Your task to perform on an android device: Open Yahoo.com Image 0: 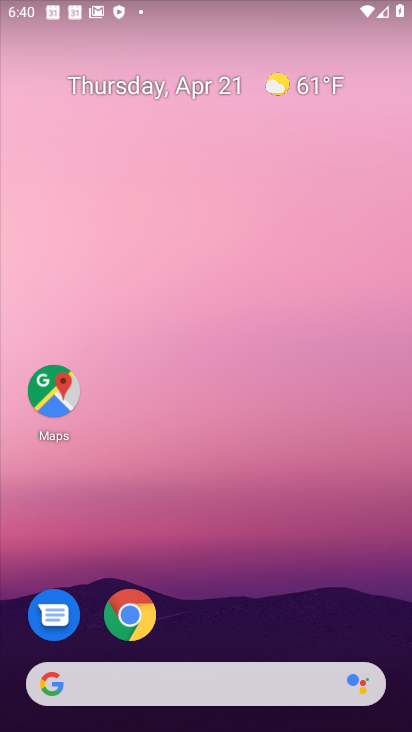
Step 0: drag from (238, 599) to (265, 78)
Your task to perform on an android device: Open Yahoo.com Image 1: 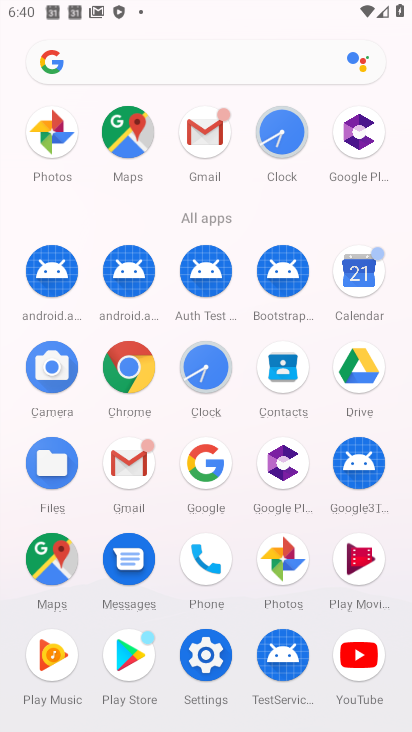
Step 1: click (109, 365)
Your task to perform on an android device: Open Yahoo.com Image 2: 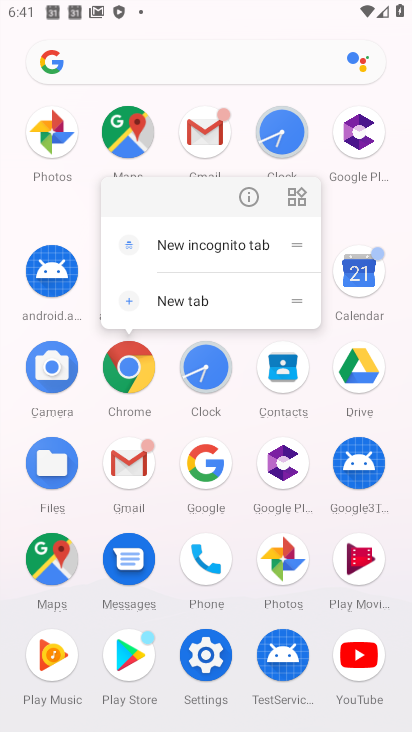
Step 2: click (247, 192)
Your task to perform on an android device: Open Yahoo.com Image 3: 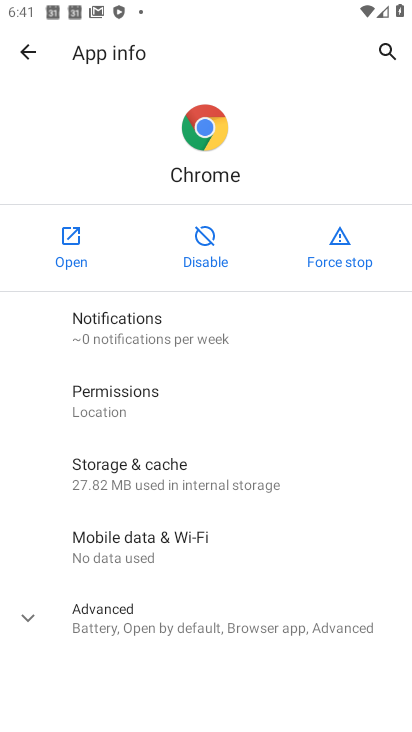
Step 3: click (62, 233)
Your task to perform on an android device: Open Yahoo.com Image 4: 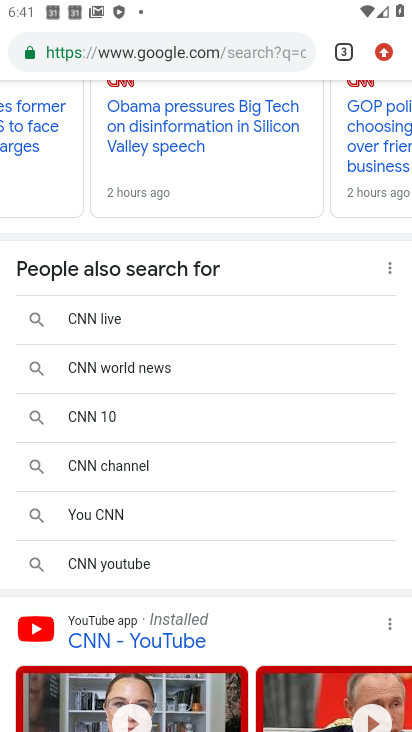
Step 4: click (344, 42)
Your task to perform on an android device: Open Yahoo.com Image 5: 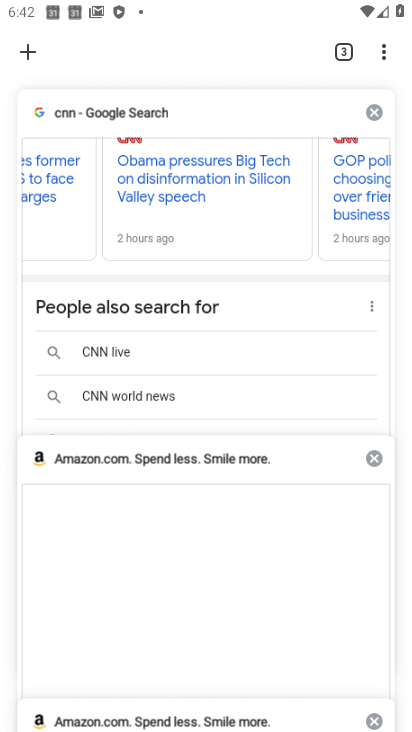
Step 5: click (373, 114)
Your task to perform on an android device: Open Yahoo.com Image 6: 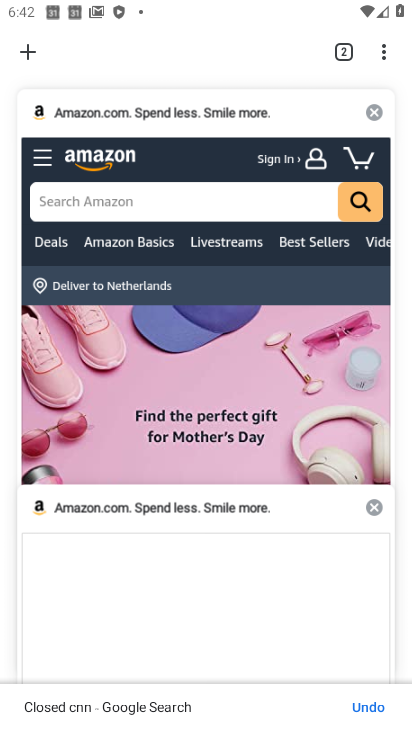
Step 6: click (372, 116)
Your task to perform on an android device: Open Yahoo.com Image 7: 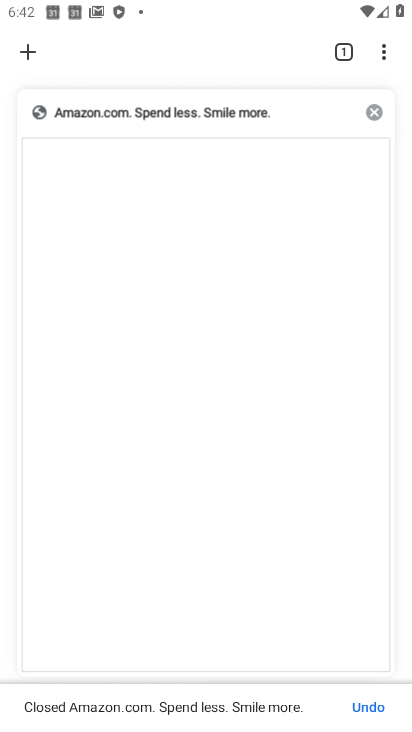
Step 7: click (373, 114)
Your task to perform on an android device: Open Yahoo.com Image 8: 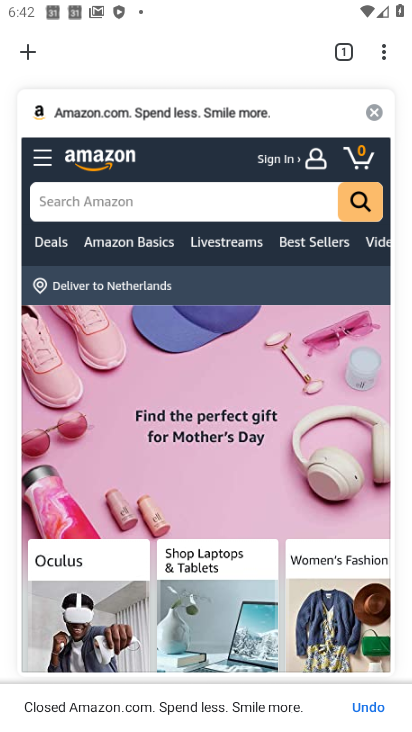
Step 8: click (20, 60)
Your task to perform on an android device: Open Yahoo.com Image 9: 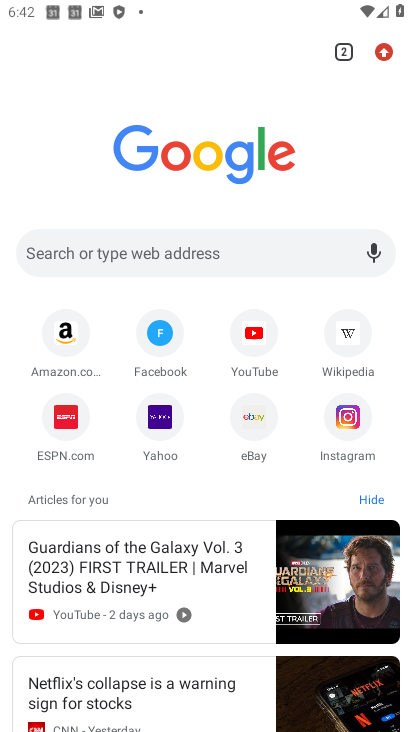
Step 9: click (158, 415)
Your task to perform on an android device: Open Yahoo.com Image 10: 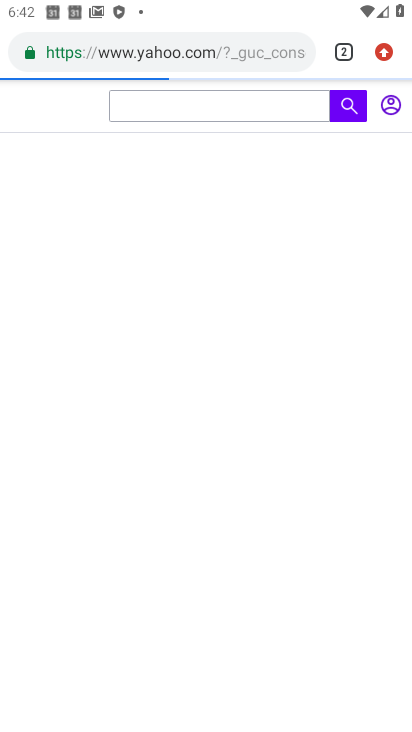
Step 10: task complete